Your task to perform on an android device: Turn on the flashlight Image 0: 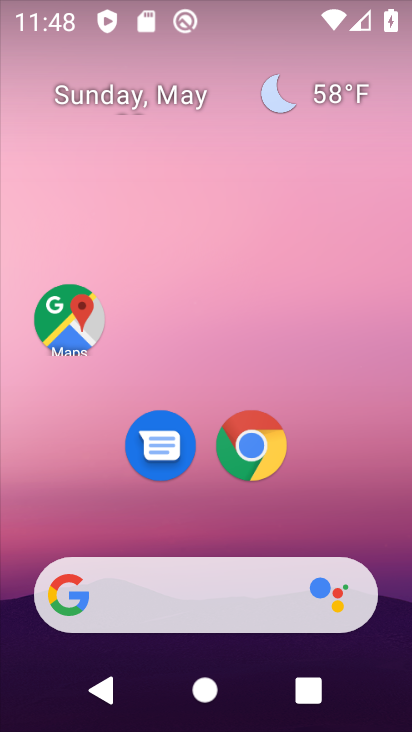
Step 0: click (240, 11)
Your task to perform on an android device: Turn on the flashlight Image 1: 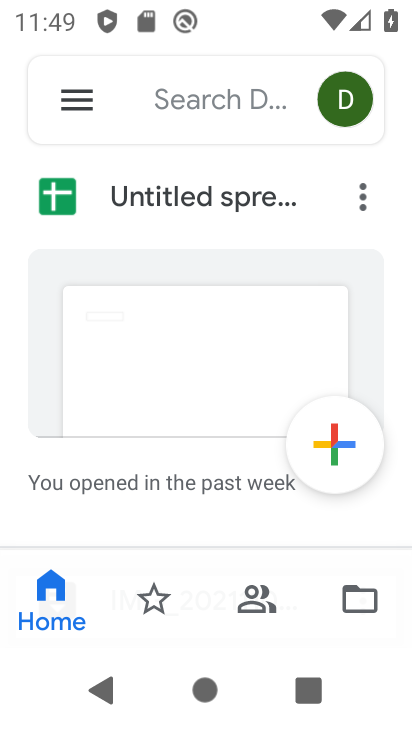
Step 1: press home button
Your task to perform on an android device: Turn on the flashlight Image 2: 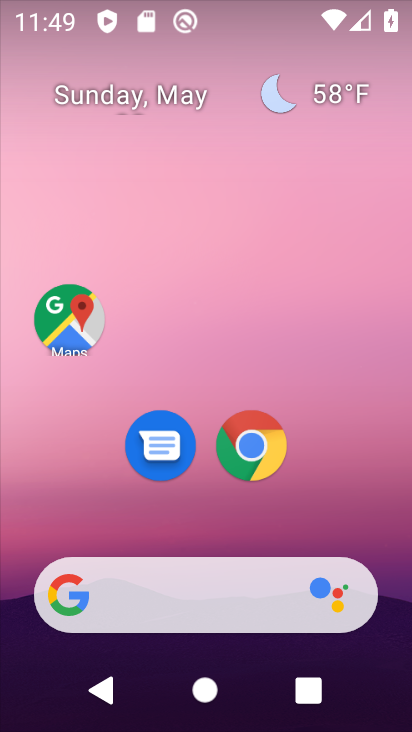
Step 2: drag from (203, 541) to (255, 3)
Your task to perform on an android device: Turn on the flashlight Image 3: 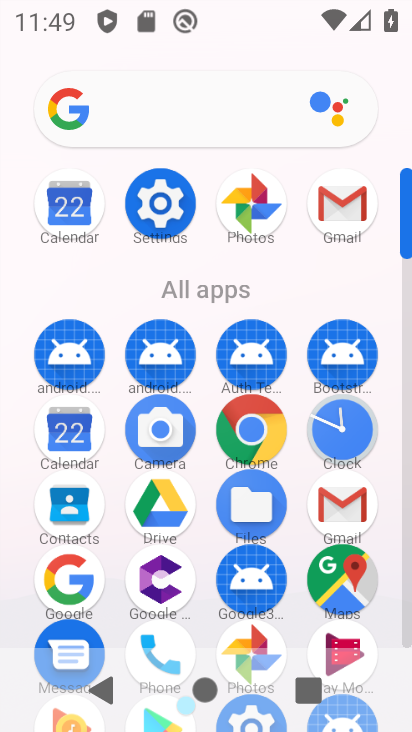
Step 3: click (156, 197)
Your task to perform on an android device: Turn on the flashlight Image 4: 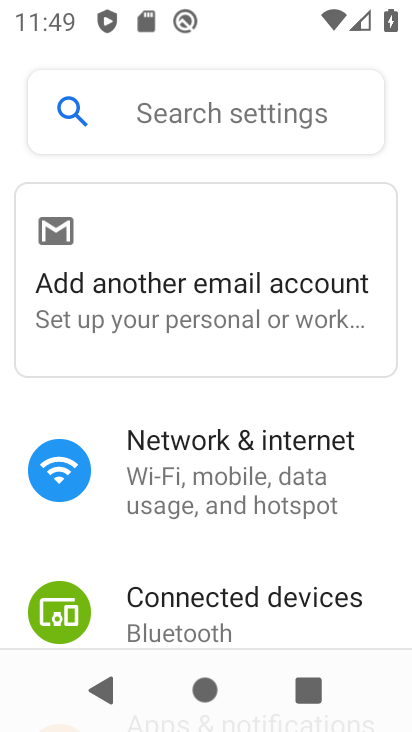
Step 4: click (192, 98)
Your task to perform on an android device: Turn on the flashlight Image 5: 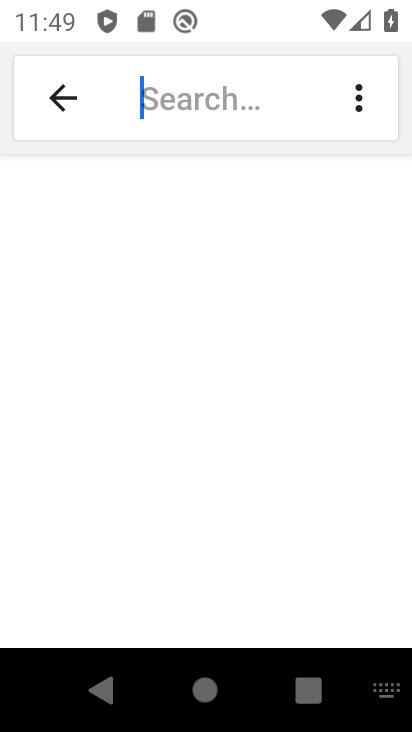
Step 5: type "flashlight"
Your task to perform on an android device: Turn on the flashlight Image 6: 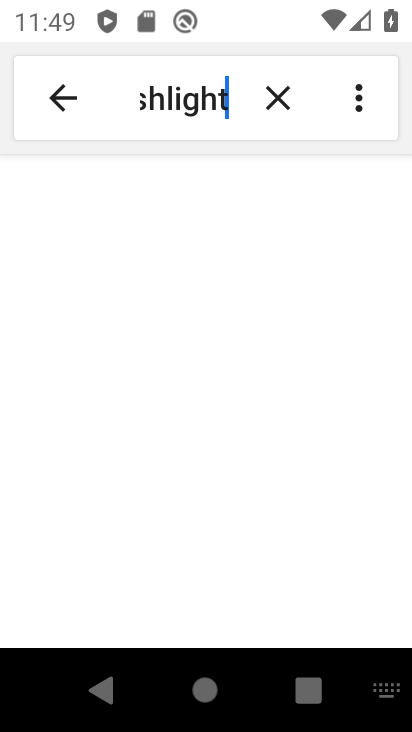
Step 6: type ""
Your task to perform on an android device: Turn on the flashlight Image 7: 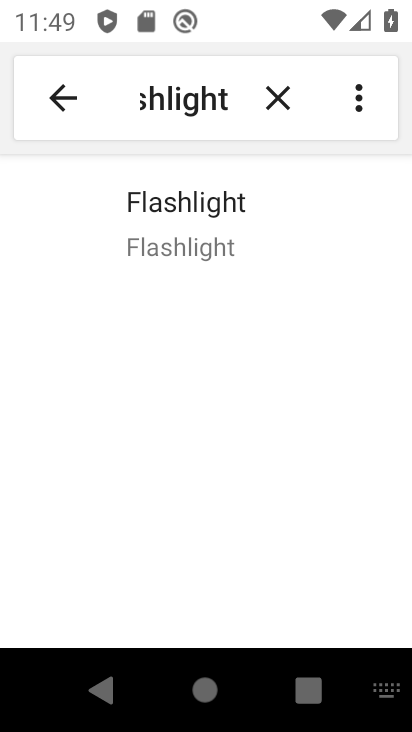
Step 7: click (161, 210)
Your task to perform on an android device: Turn on the flashlight Image 8: 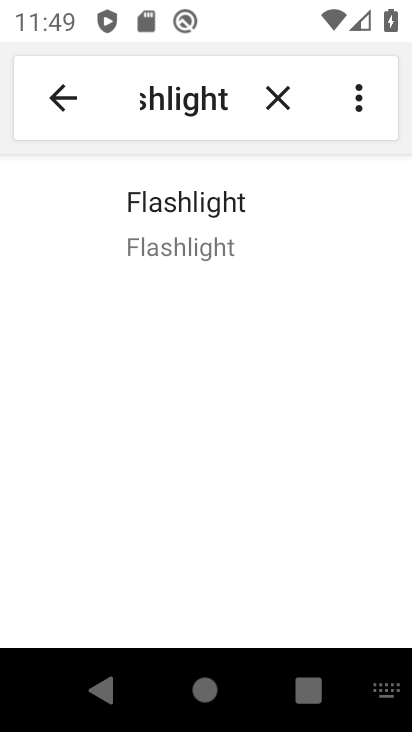
Step 8: task complete